Your task to perform on an android device: Go to Google Image 0: 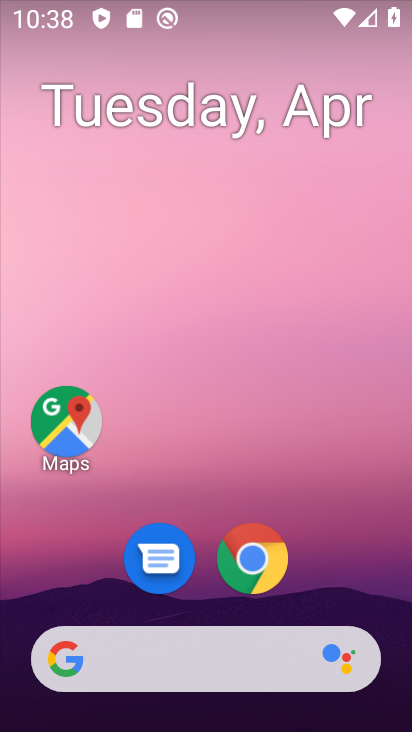
Step 0: drag from (323, 589) to (392, 108)
Your task to perform on an android device: Go to Google Image 1: 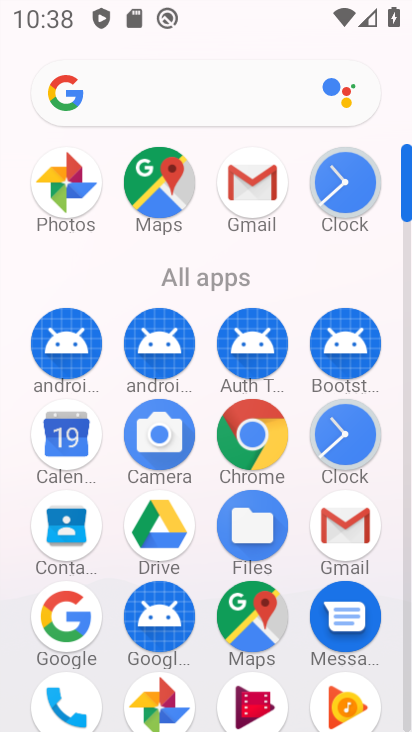
Step 1: click (59, 632)
Your task to perform on an android device: Go to Google Image 2: 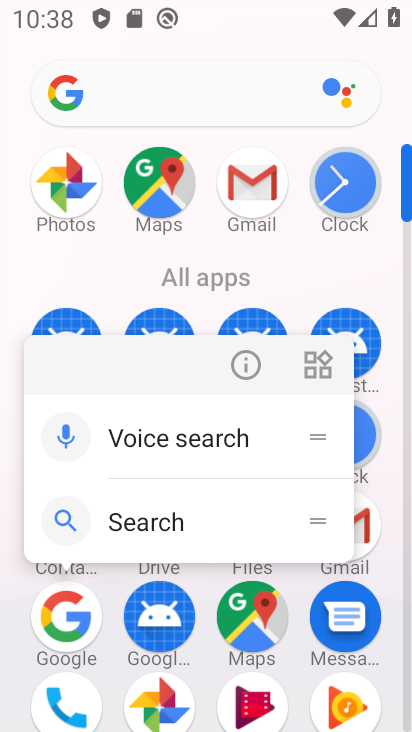
Step 2: click (61, 619)
Your task to perform on an android device: Go to Google Image 3: 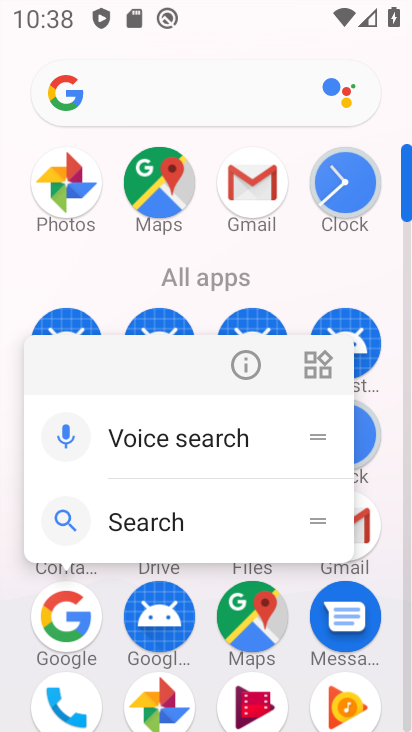
Step 3: click (60, 620)
Your task to perform on an android device: Go to Google Image 4: 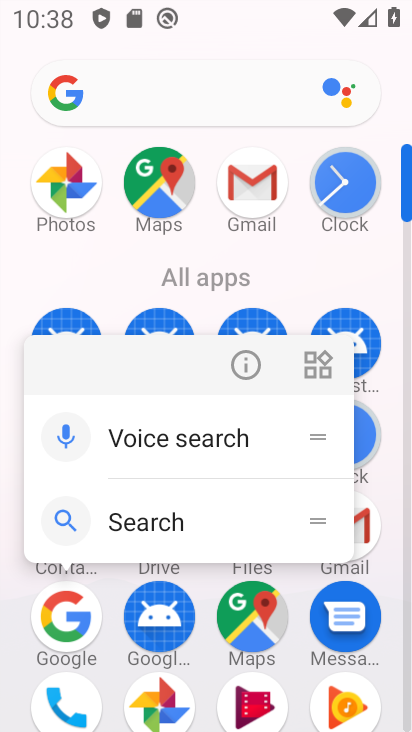
Step 4: click (60, 620)
Your task to perform on an android device: Go to Google Image 5: 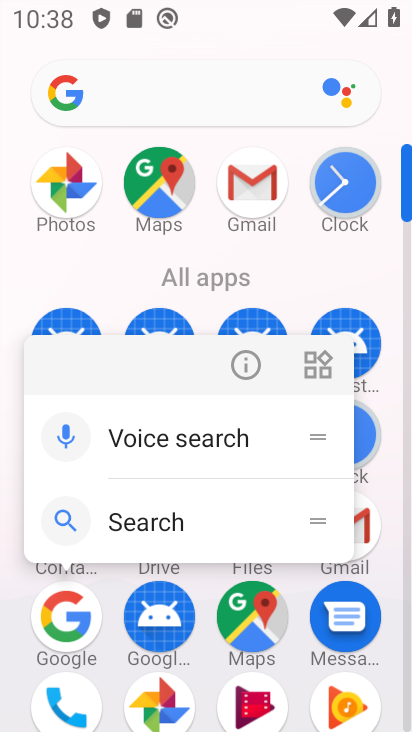
Step 5: click (69, 616)
Your task to perform on an android device: Go to Google Image 6: 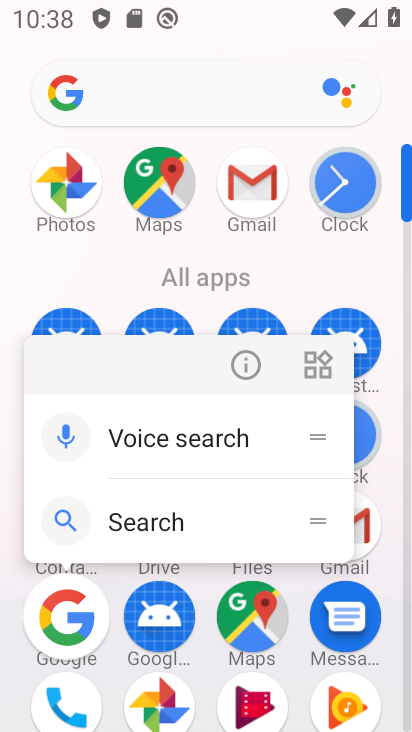
Step 6: click (69, 616)
Your task to perform on an android device: Go to Google Image 7: 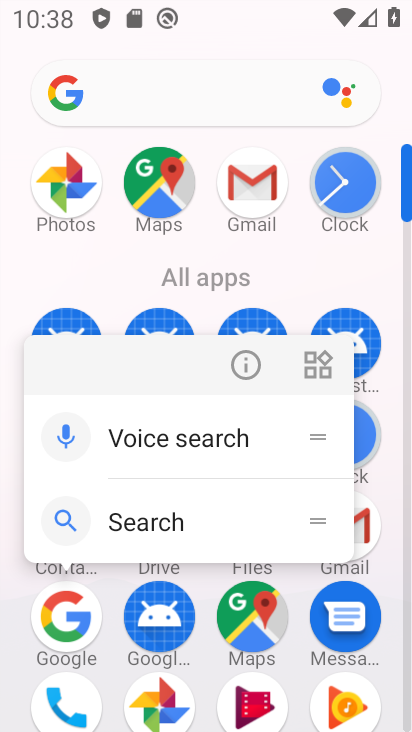
Step 7: click (69, 616)
Your task to perform on an android device: Go to Google Image 8: 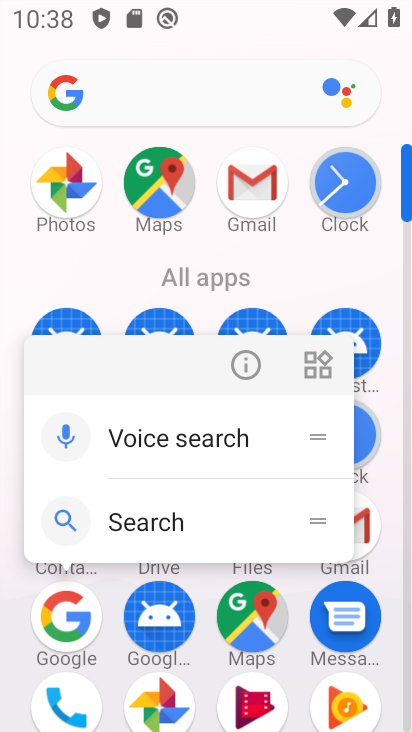
Step 8: click (69, 616)
Your task to perform on an android device: Go to Google Image 9: 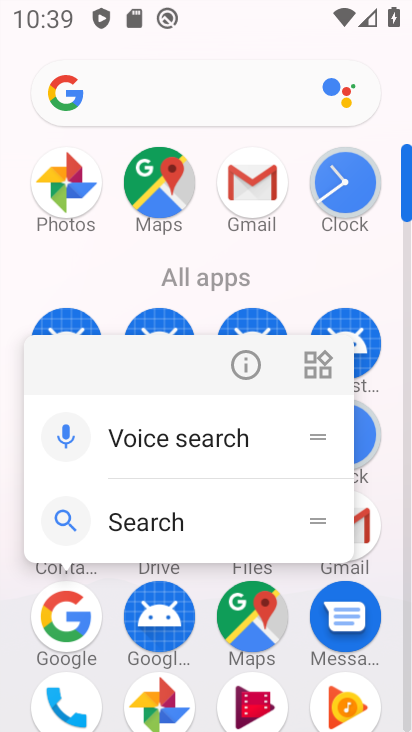
Step 9: click (350, 273)
Your task to perform on an android device: Go to Google Image 10: 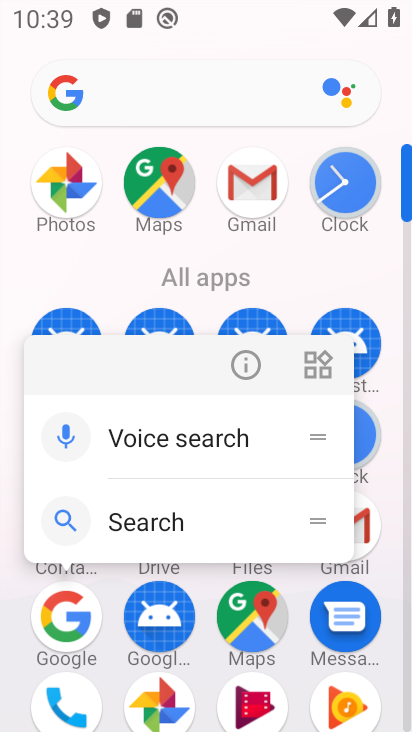
Step 10: click (320, 272)
Your task to perform on an android device: Go to Google Image 11: 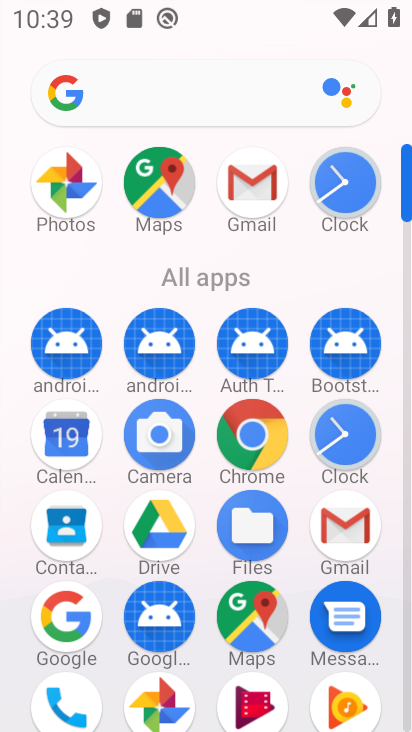
Step 11: click (318, 43)
Your task to perform on an android device: Go to Google Image 12: 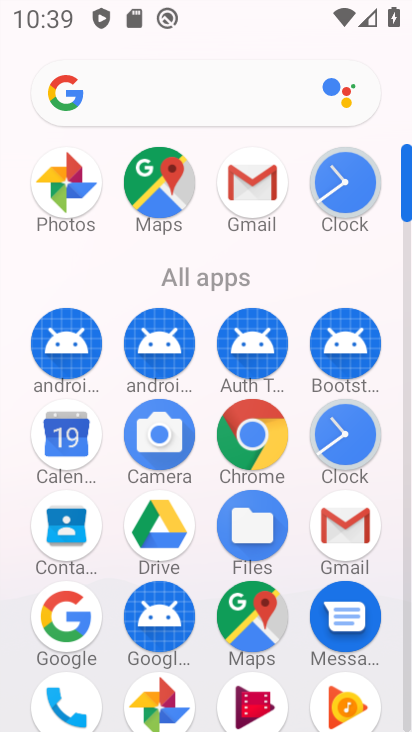
Step 12: drag from (293, 272) to (302, 6)
Your task to perform on an android device: Go to Google Image 13: 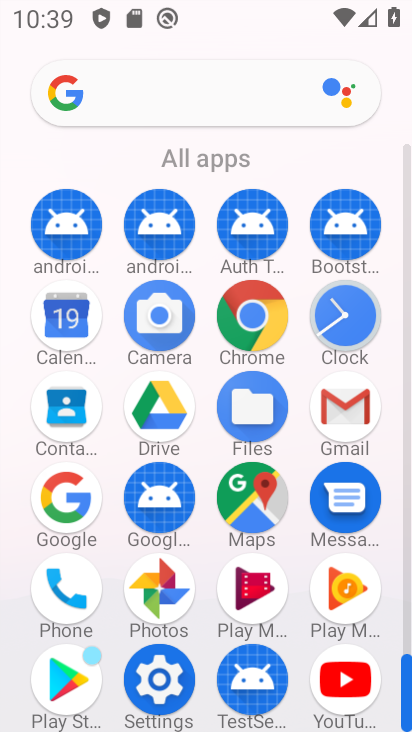
Step 13: click (63, 500)
Your task to perform on an android device: Go to Google Image 14: 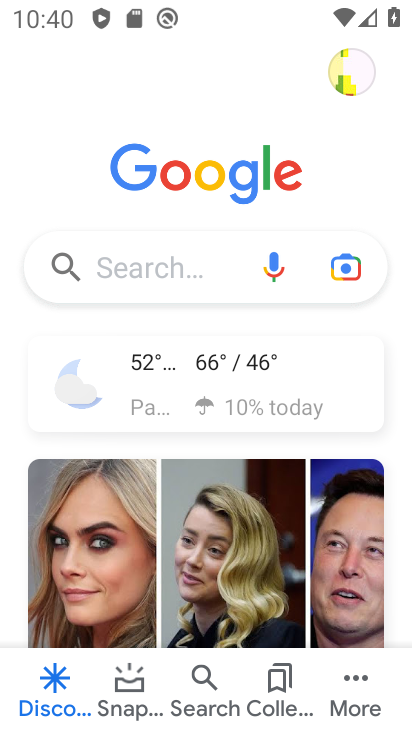
Step 14: task complete